Your task to perform on an android device: Turn off the flashlight Image 0: 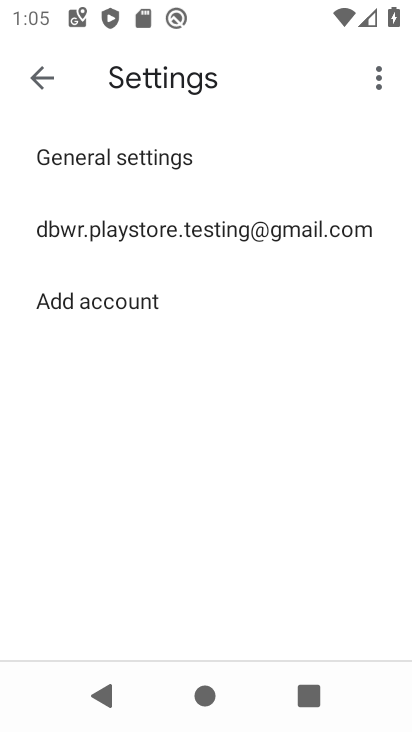
Step 0: press home button
Your task to perform on an android device: Turn off the flashlight Image 1: 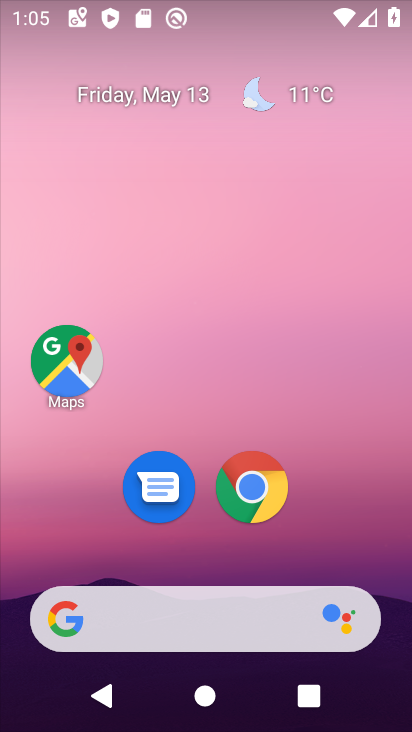
Step 1: drag from (320, 549) to (322, 205)
Your task to perform on an android device: Turn off the flashlight Image 2: 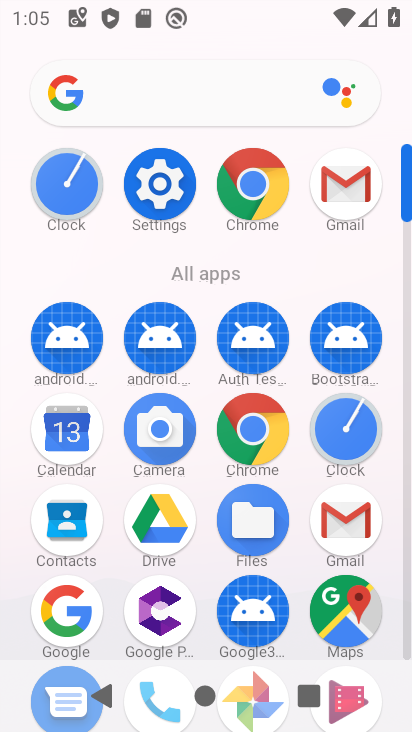
Step 2: click (157, 193)
Your task to perform on an android device: Turn off the flashlight Image 3: 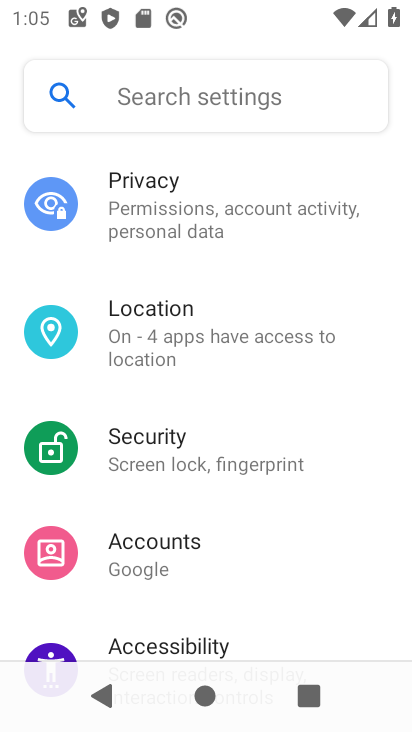
Step 3: click (212, 100)
Your task to perform on an android device: Turn off the flashlight Image 4: 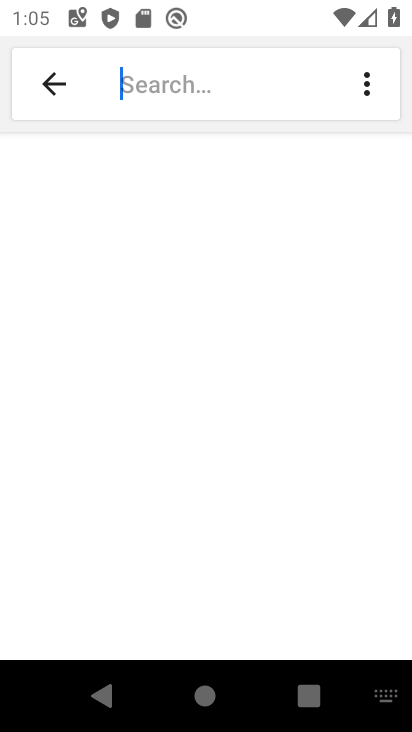
Step 4: type "Flashlight"
Your task to perform on an android device: Turn off the flashlight Image 5: 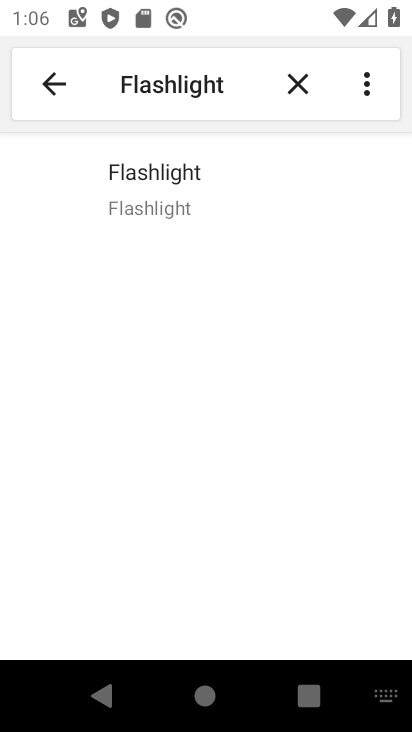
Step 5: click (195, 201)
Your task to perform on an android device: Turn off the flashlight Image 6: 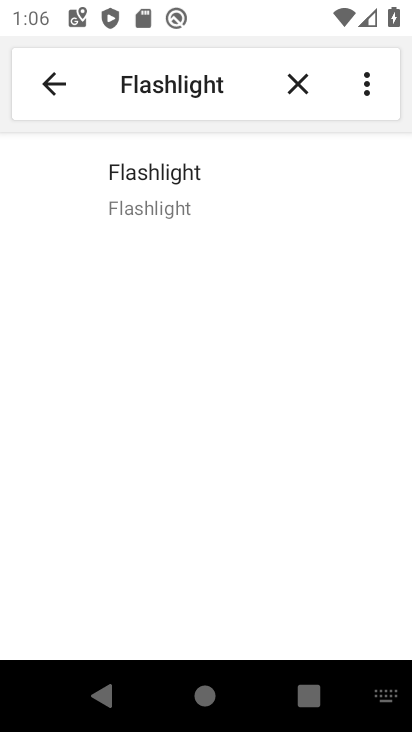
Step 6: task complete